Your task to perform on an android device: change keyboard looks Image 0: 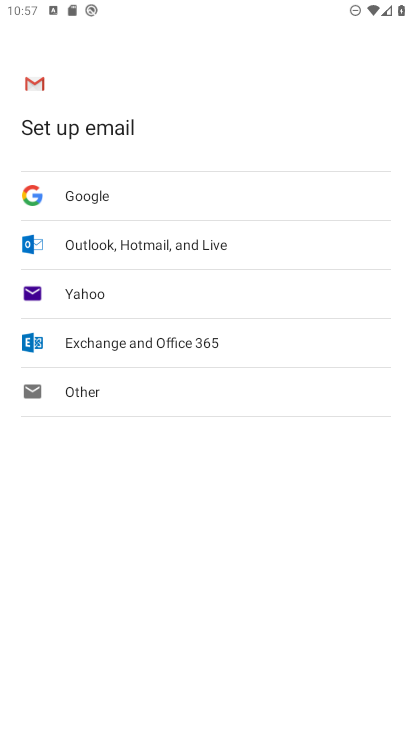
Step 0: press home button
Your task to perform on an android device: change keyboard looks Image 1: 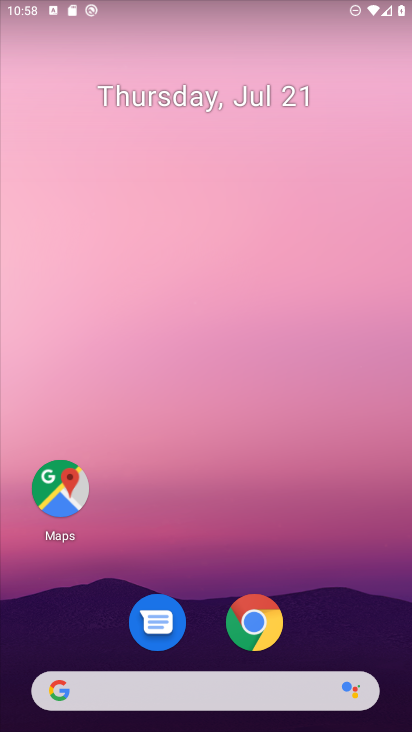
Step 1: drag from (181, 683) to (139, 0)
Your task to perform on an android device: change keyboard looks Image 2: 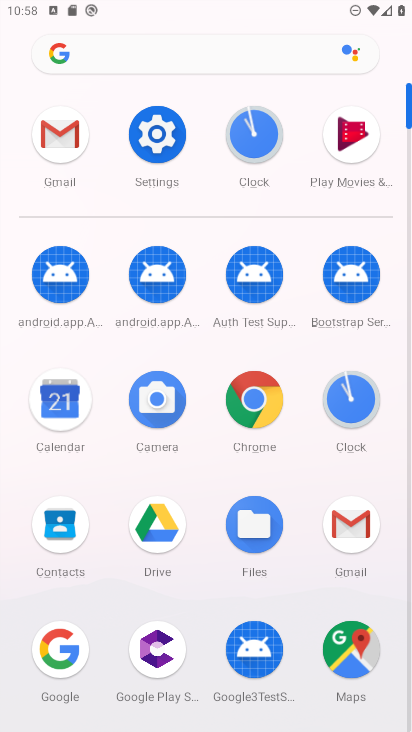
Step 2: click (170, 127)
Your task to perform on an android device: change keyboard looks Image 3: 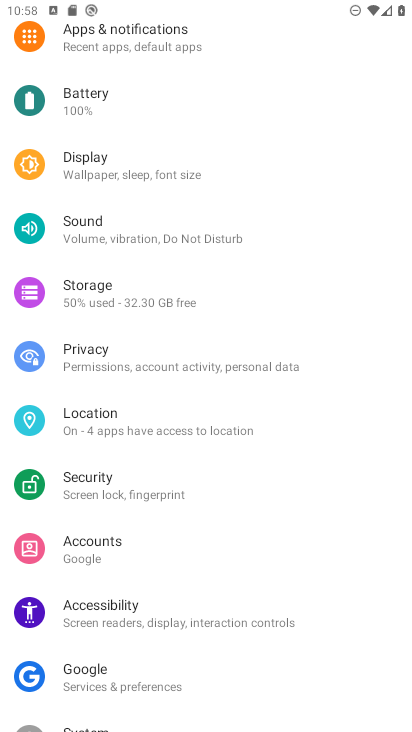
Step 3: drag from (285, 670) to (336, 20)
Your task to perform on an android device: change keyboard looks Image 4: 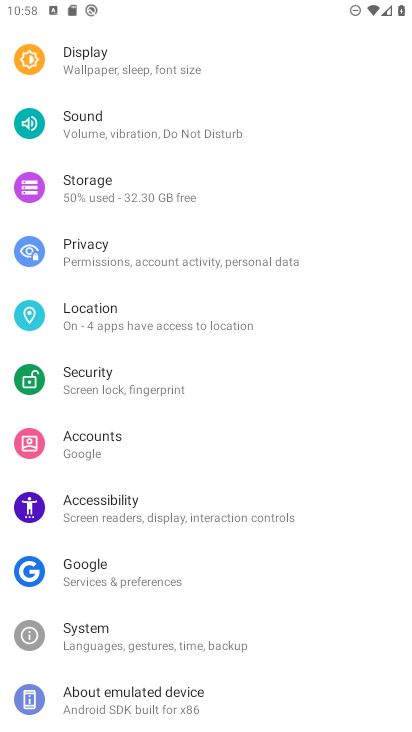
Step 4: drag from (119, 619) to (257, 4)
Your task to perform on an android device: change keyboard looks Image 5: 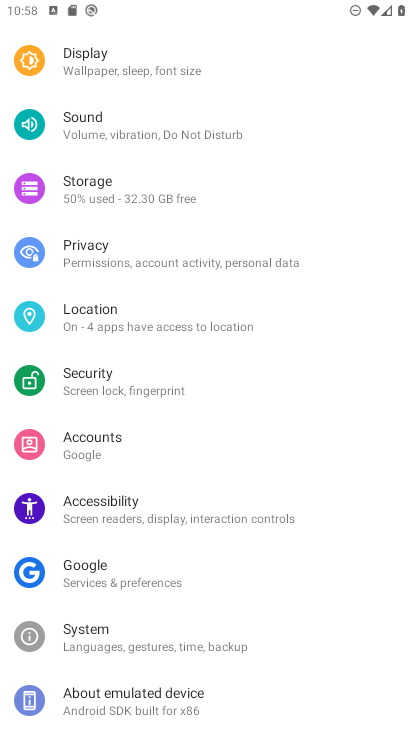
Step 5: click (141, 646)
Your task to perform on an android device: change keyboard looks Image 6: 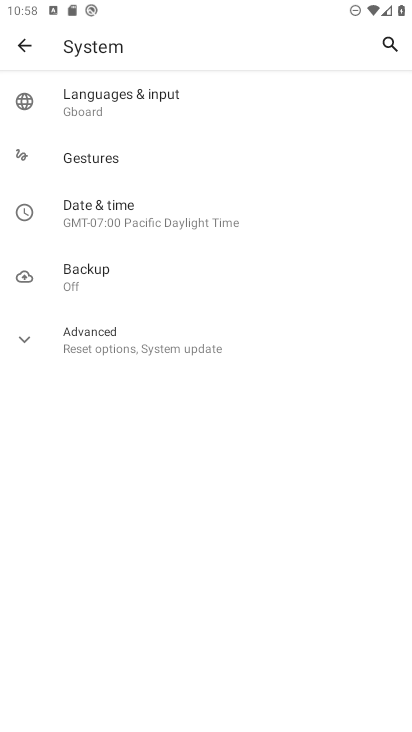
Step 6: click (143, 97)
Your task to perform on an android device: change keyboard looks Image 7: 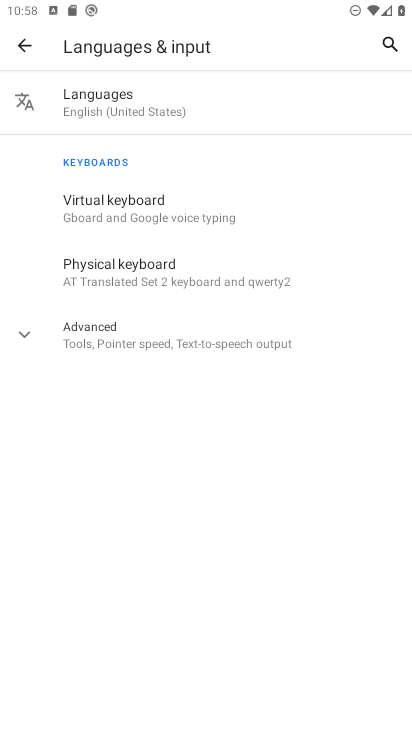
Step 7: click (195, 210)
Your task to perform on an android device: change keyboard looks Image 8: 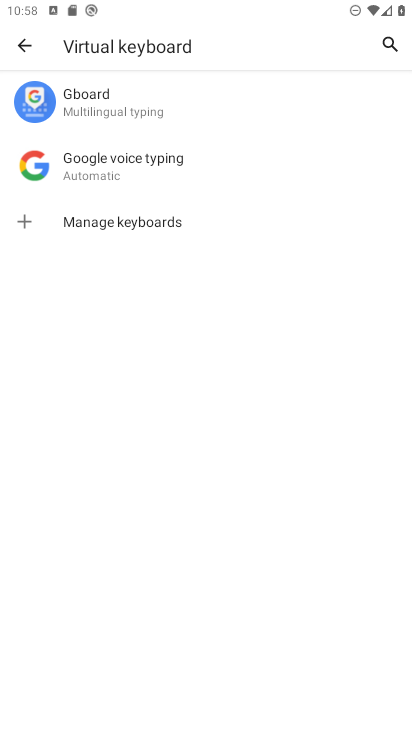
Step 8: click (105, 96)
Your task to perform on an android device: change keyboard looks Image 9: 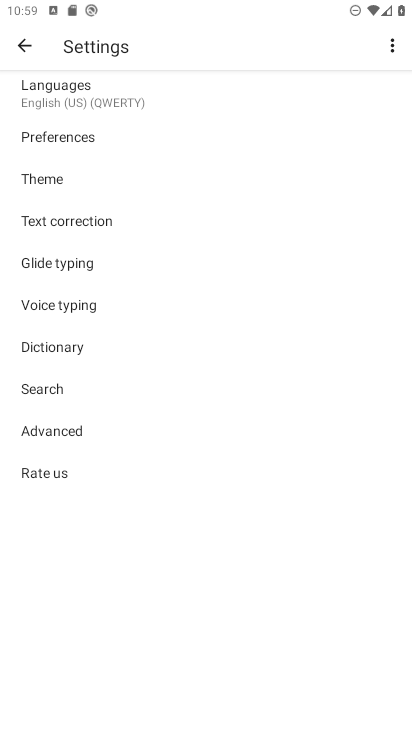
Step 9: click (74, 171)
Your task to perform on an android device: change keyboard looks Image 10: 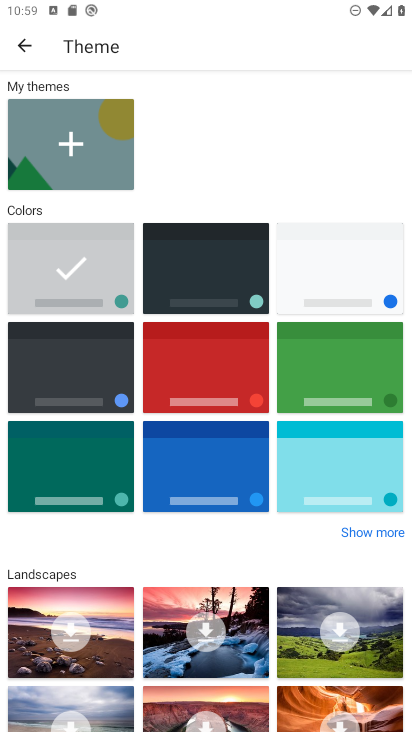
Step 10: click (219, 653)
Your task to perform on an android device: change keyboard looks Image 11: 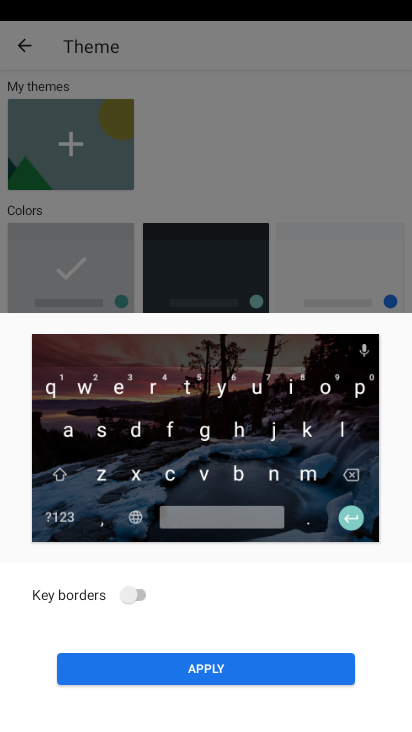
Step 11: click (229, 669)
Your task to perform on an android device: change keyboard looks Image 12: 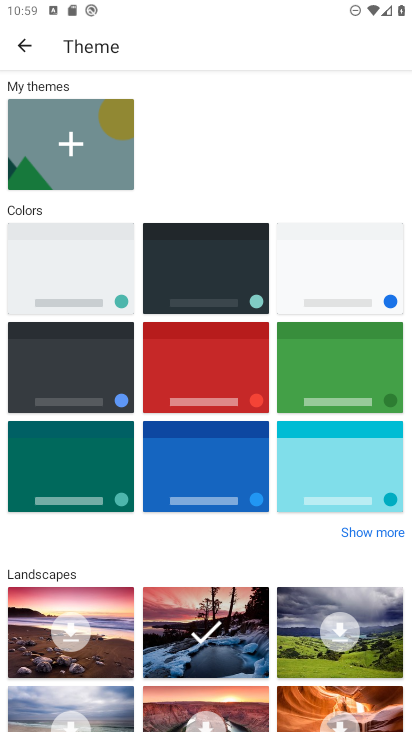
Step 12: task complete